Your task to perform on an android device: delete location history Image 0: 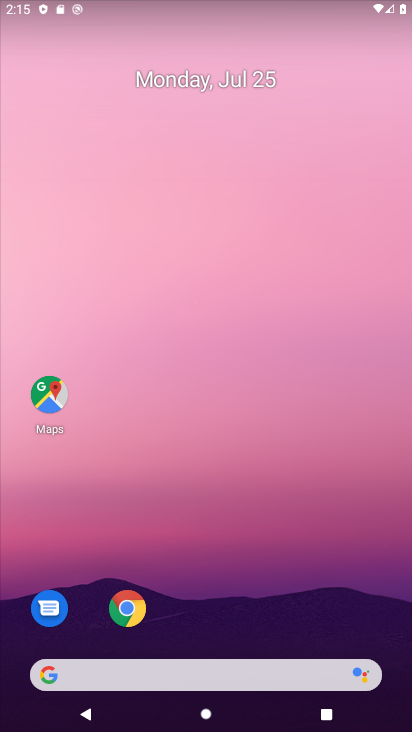
Step 0: drag from (243, 632) to (169, 65)
Your task to perform on an android device: delete location history Image 1: 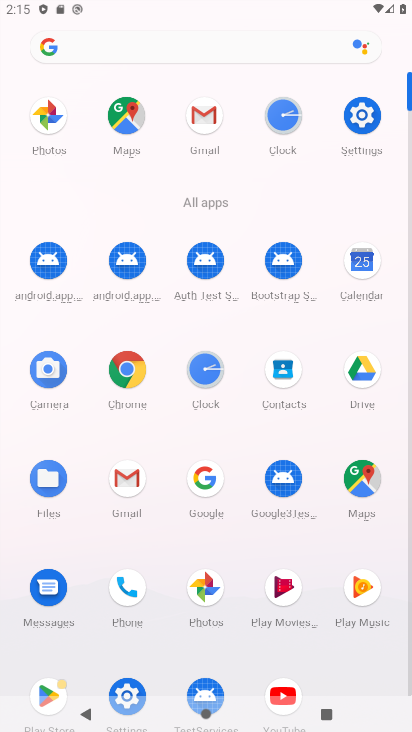
Step 1: click (139, 117)
Your task to perform on an android device: delete location history Image 2: 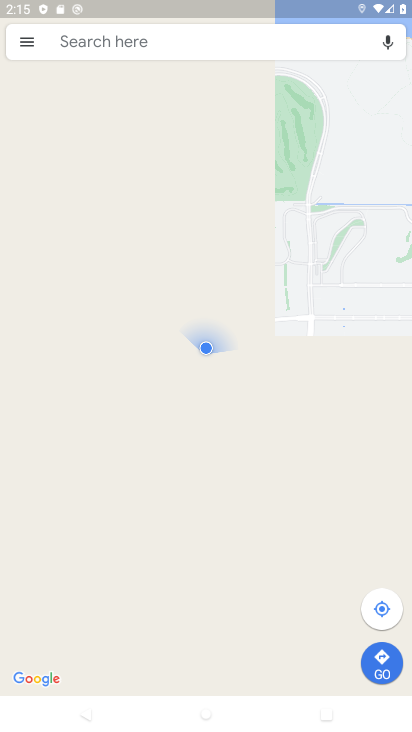
Step 2: click (27, 43)
Your task to perform on an android device: delete location history Image 3: 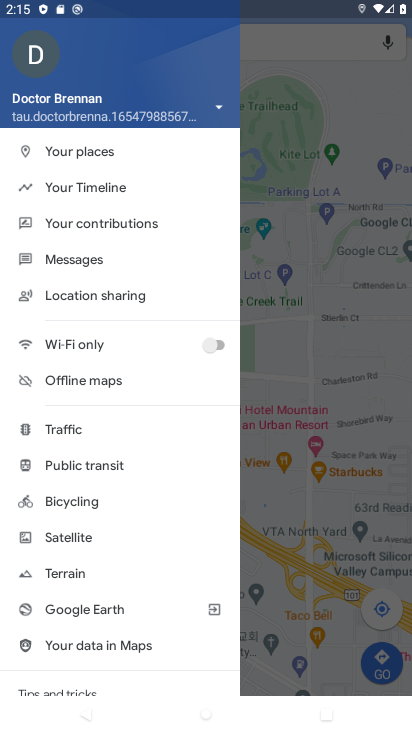
Step 3: drag from (133, 639) to (131, 294)
Your task to perform on an android device: delete location history Image 4: 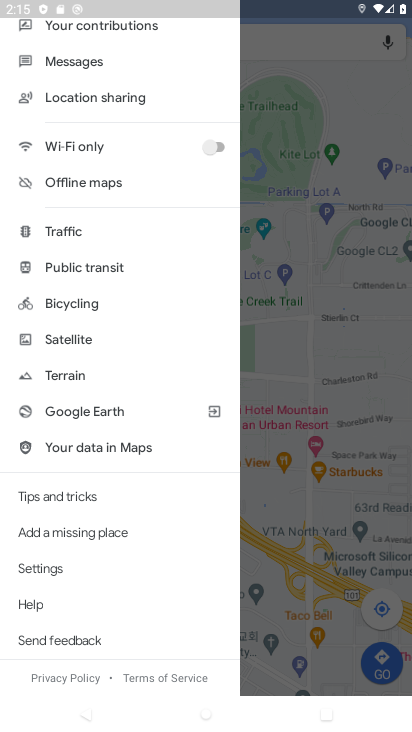
Step 4: drag from (127, 263) to (150, 588)
Your task to perform on an android device: delete location history Image 5: 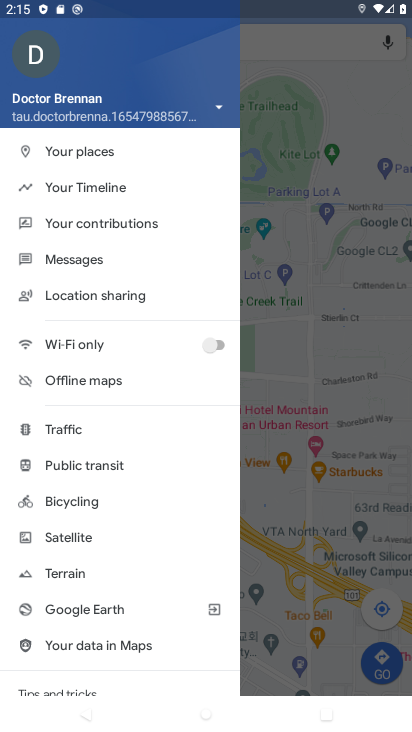
Step 5: click (107, 200)
Your task to perform on an android device: delete location history Image 6: 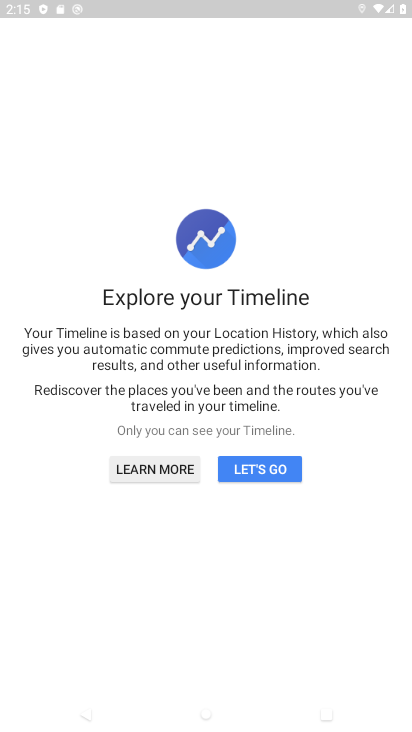
Step 6: click (244, 461)
Your task to perform on an android device: delete location history Image 7: 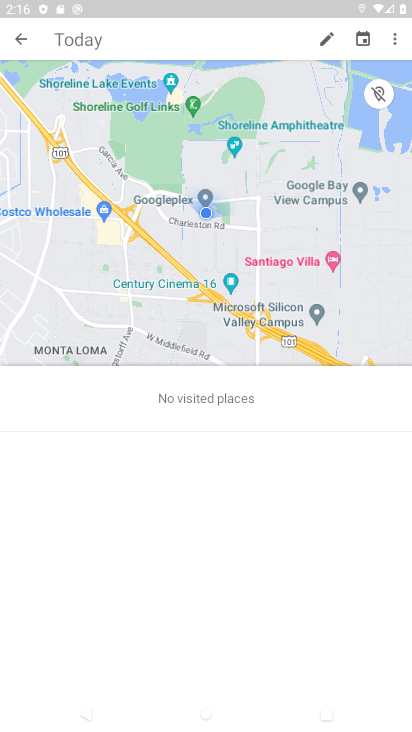
Step 7: click (403, 44)
Your task to perform on an android device: delete location history Image 8: 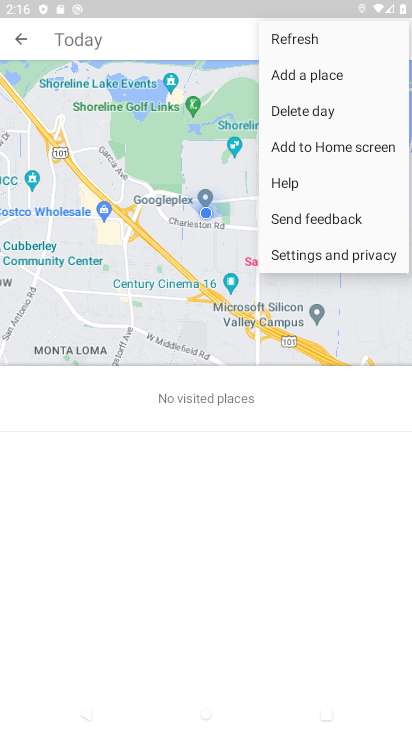
Step 8: click (359, 257)
Your task to perform on an android device: delete location history Image 9: 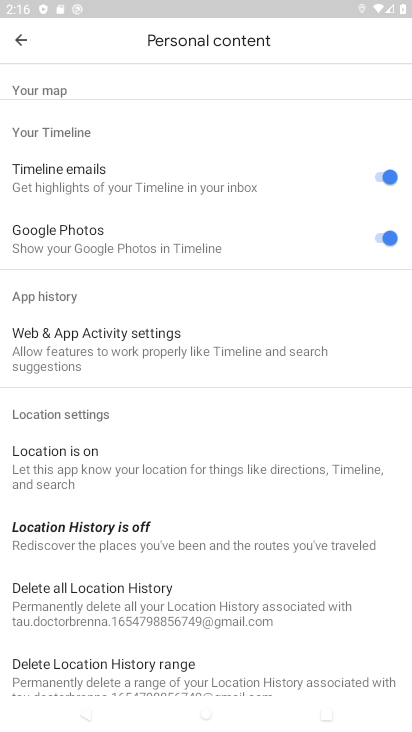
Step 9: click (198, 584)
Your task to perform on an android device: delete location history Image 10: 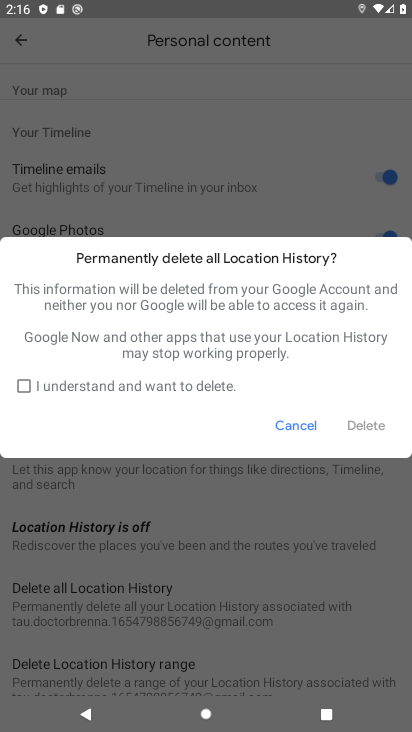
Step 10: click (224, 392)
Your task to perform on an android device: delete location history Image 11: 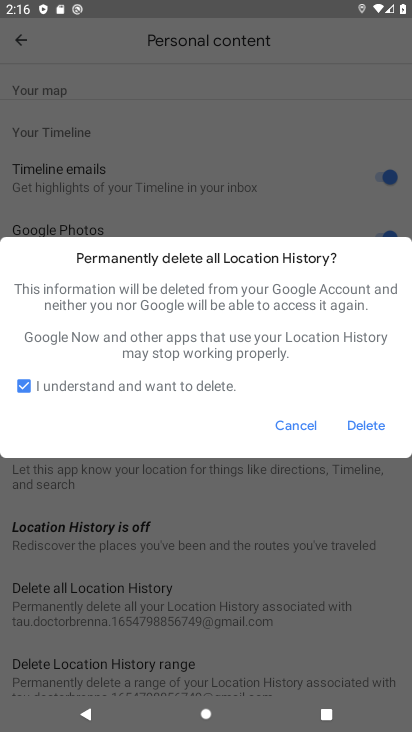
Step 11: click (355, 433)
Your task to perform on an android device: delete location history Image 12: 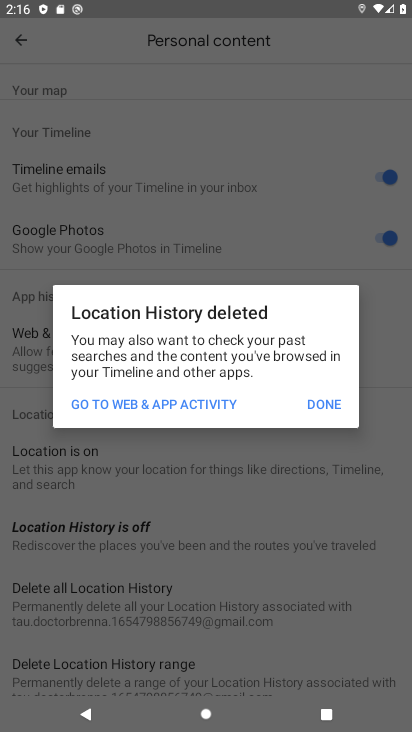
Step 12: click (325, 412)
Your task to perform on an android device: delete location history Image 13: 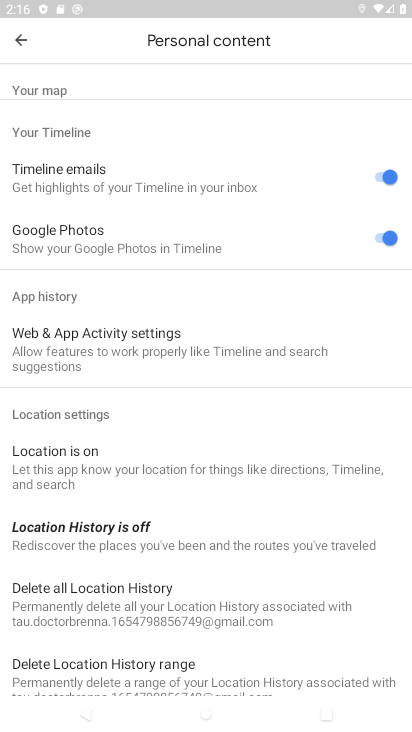
Step 13: task complete